Your task to perform on an android device: turn off sleep mode Image 0: 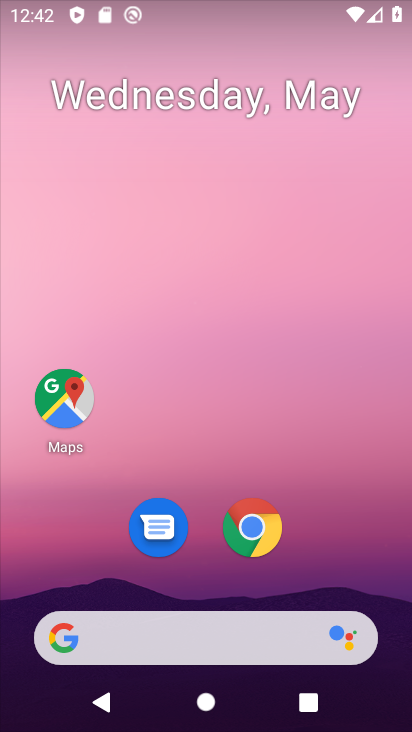
Step 0: drag from (209, 578) to (229, 48)
Your task to perform on an android device: turn off sleep mode Image 1: 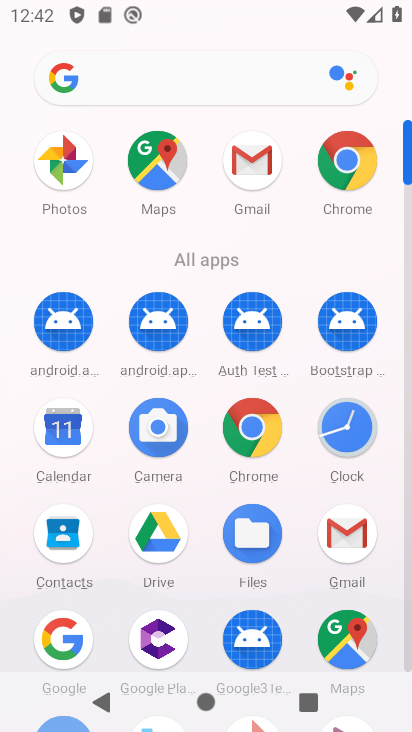
Step 1: drag from (205, 611) to (197, 290)
Your task to perform on an android device: turn off sleep mode Image 2: 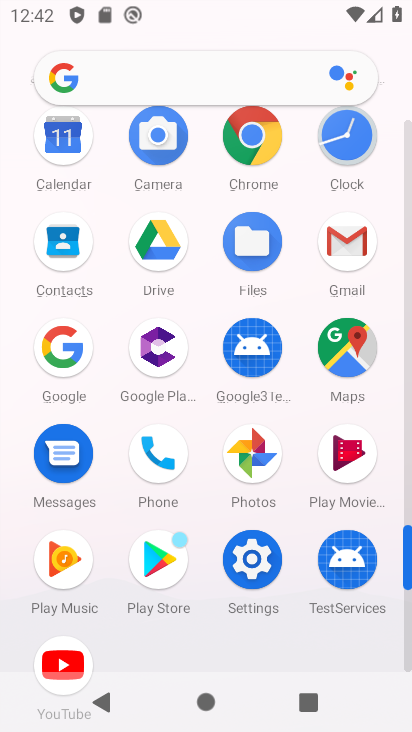
Step 2: click (237, 587)
Your task to perform on an android device: turn off sleep mode Image 3: 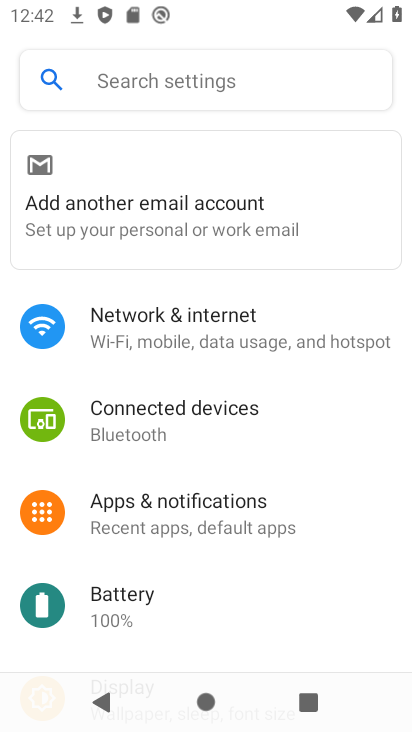
Step 3: drag from (193, 587) to (182, 261)
Your task to perform on an android device: turn off sleep mode Image 4: 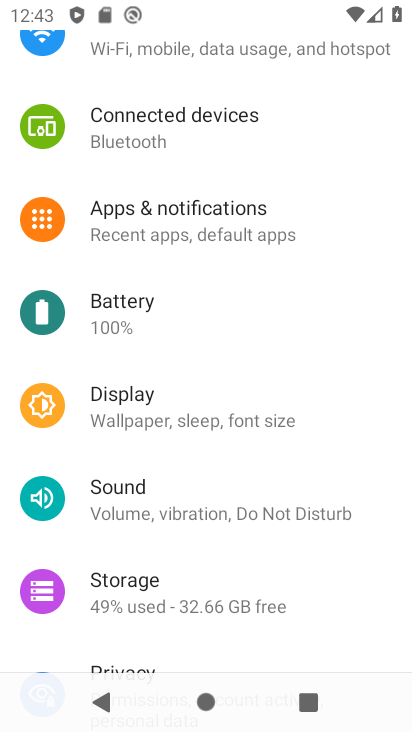
Step 4: click (184, 427)
Your task to perform on an android device: turn off sleep mode Image 5: 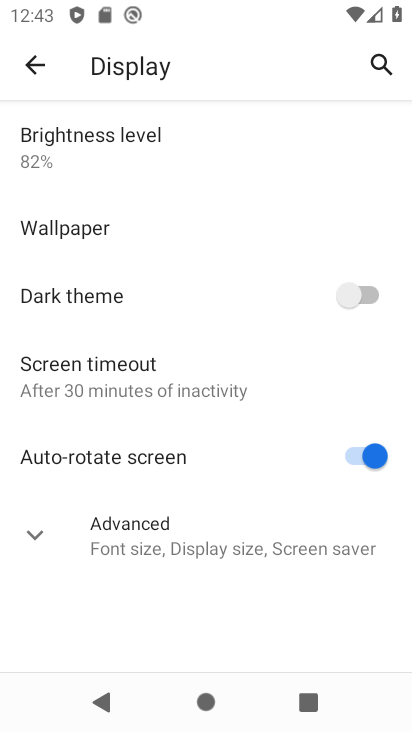
Step 5: click (153, 526)
Your task to perform on an android device: turn off sleep mode Image 6: 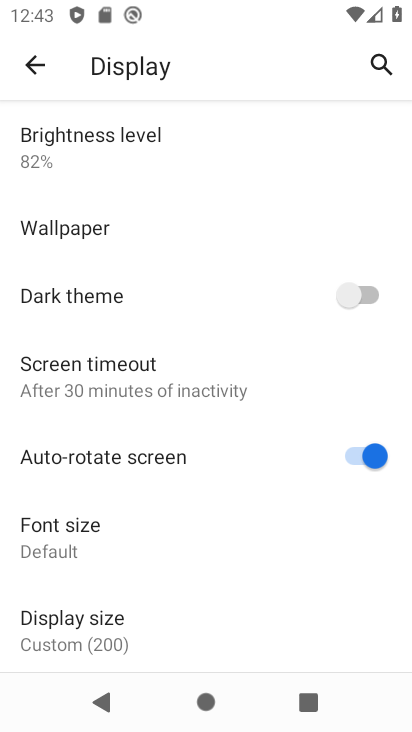
Step 6: drag from (161, 606) to (221, 217)
Your task to perform on an android device: turn off sleep mode Image 7: 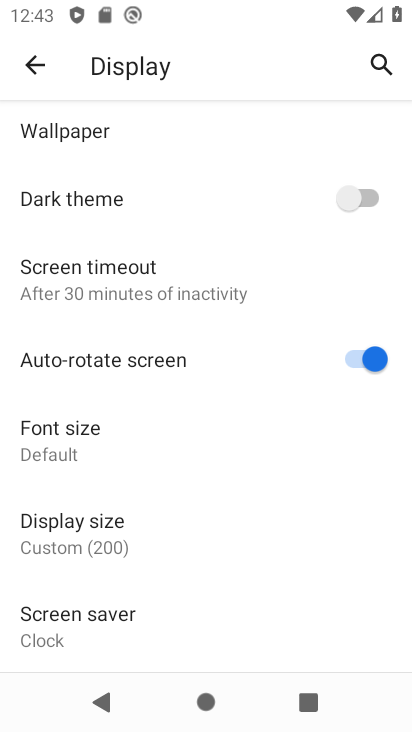
Step 7: click (151, 262)
Your task to perform on an android device: turn off sleep mode Image 8: 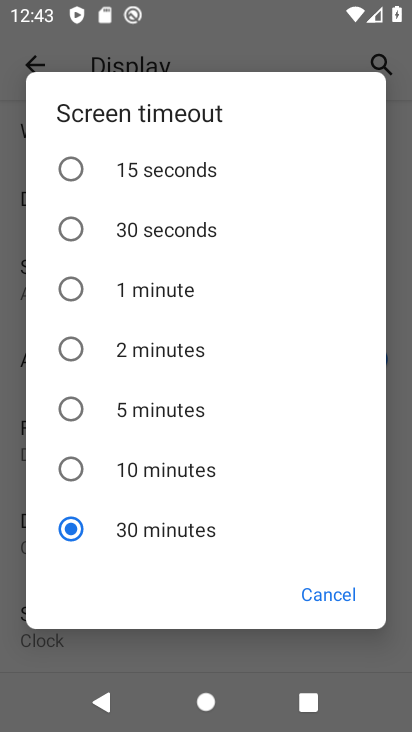
Step 8: click (126, 166)
Your task to perform on an android device: turn off sleep mode Image 9: 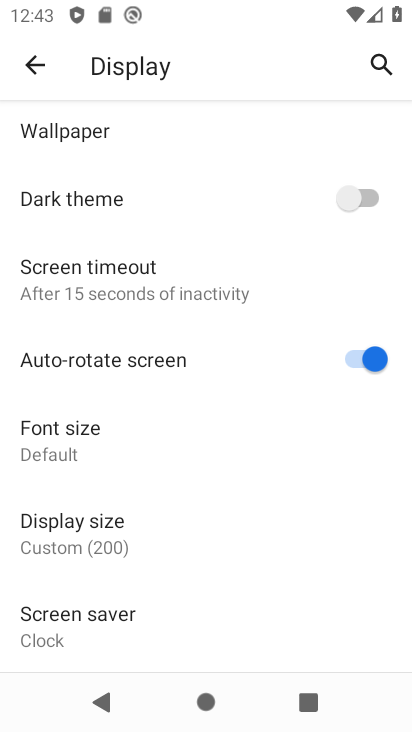
Step 9: task complete